Your task to perform on an android device: snooze an email in the gmail app Image 0: 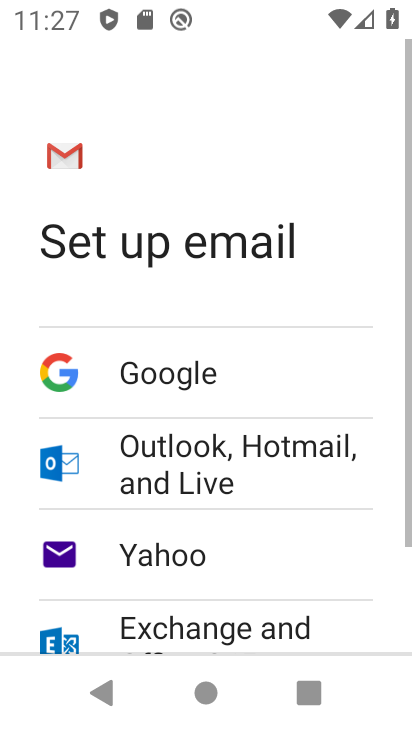
Step 0: press home button
Your task to perform on an android device: snooze an email in the gmail app Image 1: 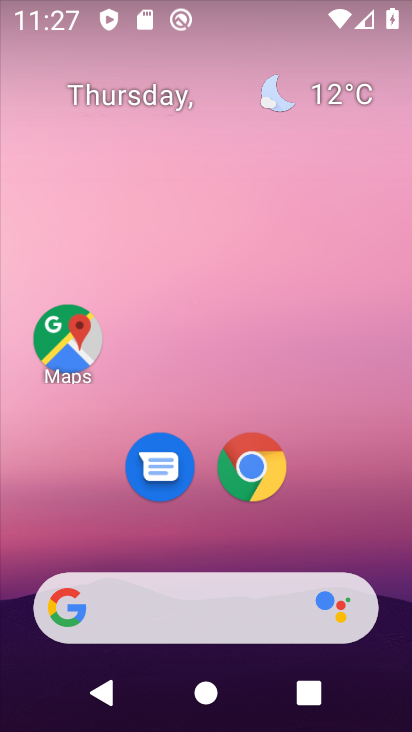
Step 1: drag from (371, 477) to (376, 25)
Your task to perform on an android device: snooze an email in the gmail app Image 2: 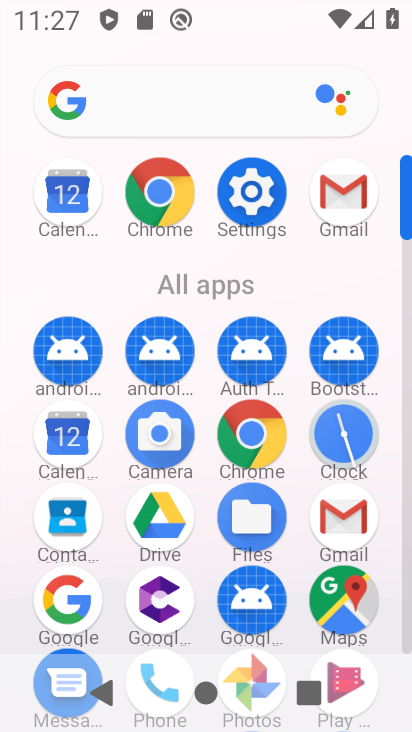
Step 2: click (339, 182)
Your task to perform on an android device: snooze an email in the gmail app Image 3: 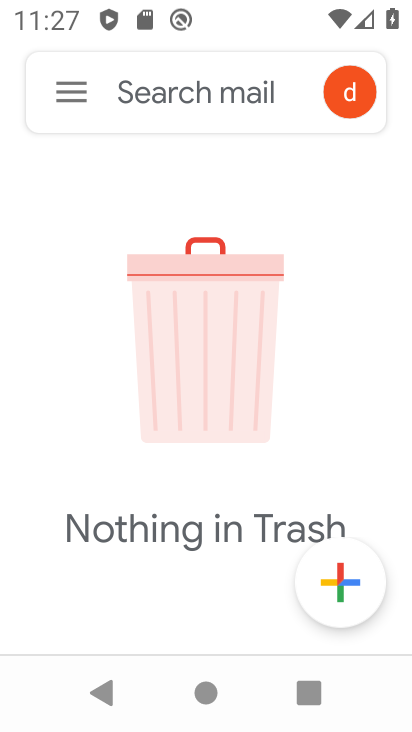
Step 3: click (41, 65)
Your task to perform on an android device: snooze an email in the gmail app Image 4: 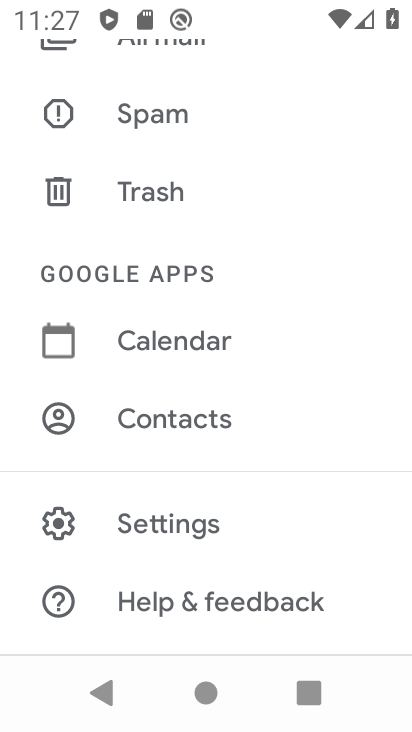
Step 4: drag from (210, 223) to (278, 673)
Your task to perform on an android device: snooze an email in the gmail app Image 5: 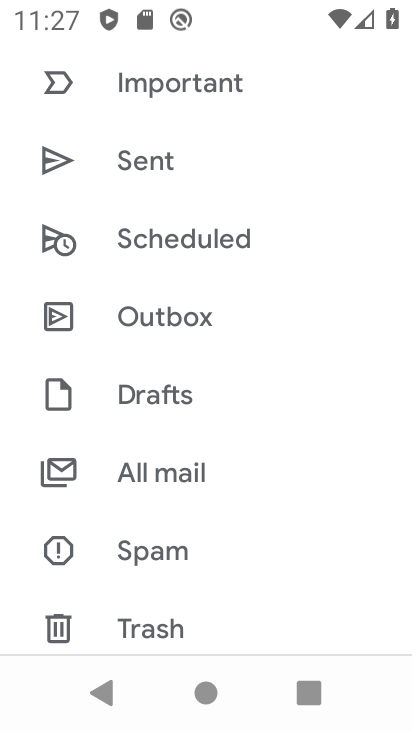
Step 5: drag from (207, 165) to (223, 654)
Your task to perform on an android device: snooze an email in the gmail app Image 6: 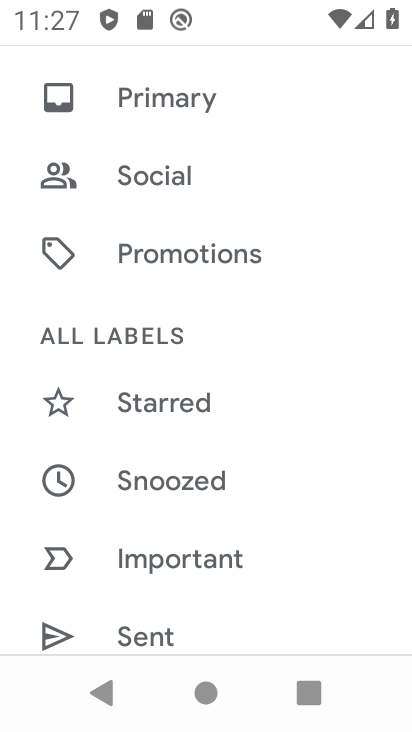
Step 6: drag from (205, 597) to (171, 70)
Your task to perform on an android device: snooze an email in the gmail app Image 7: 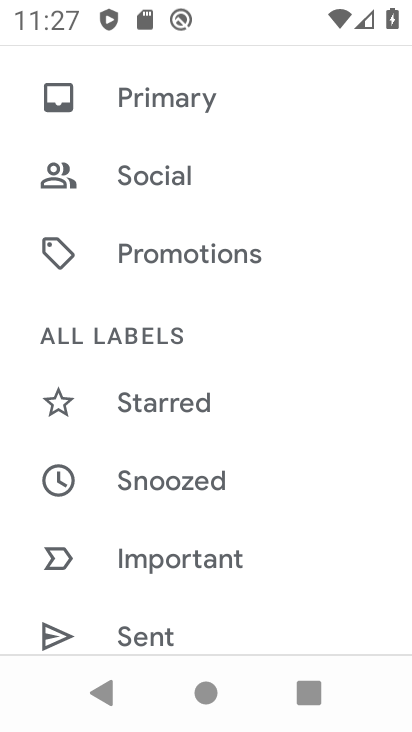
Step 7: drag from (172, 520) to (246, 86)
Your task to perform on an android device: snooze an email in the gmail app Image 8: 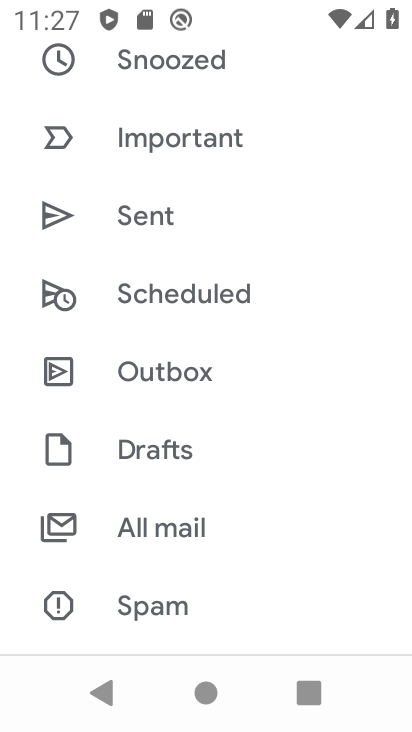
Step 8: click (151, 548)
Your task to perform on an android device: snooze an email in the gmail app Image 9: 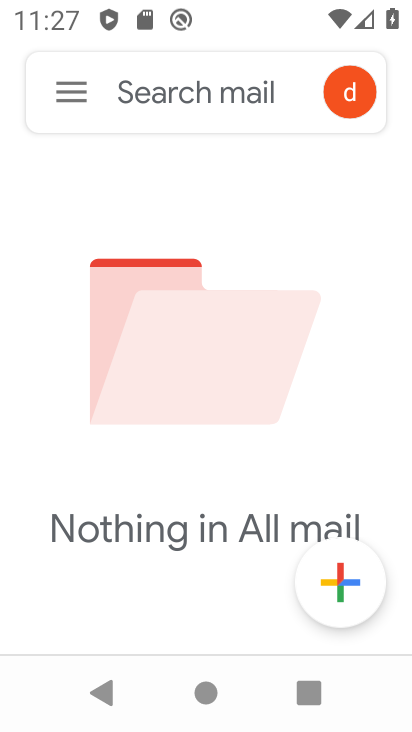
Step 9: task complete